Your task to perform on an android device: change text size in settings app Image 0: 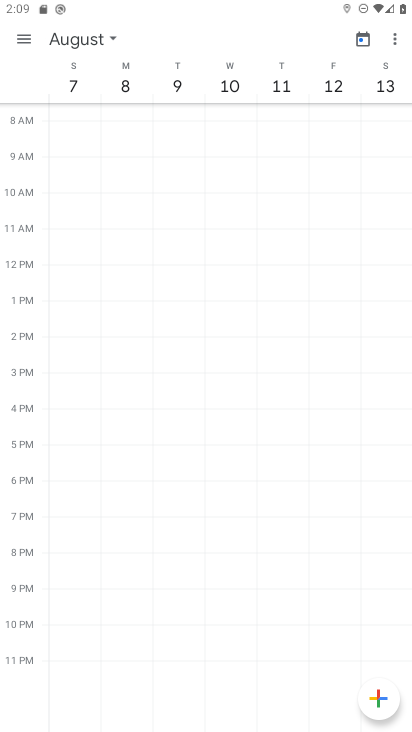
Step 0: press home button
Your task to perform on an android device: change text size in settings app Image 1: 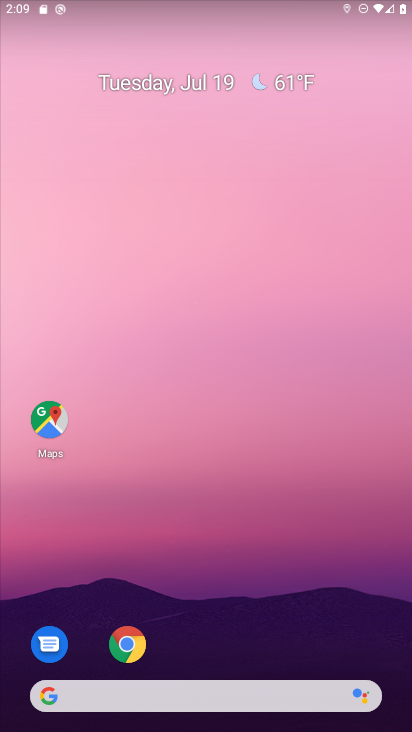
Step 1: drag from (227, 667) to (186, 66)
Your task to perform on an android device: change text size in settings app Image 2: 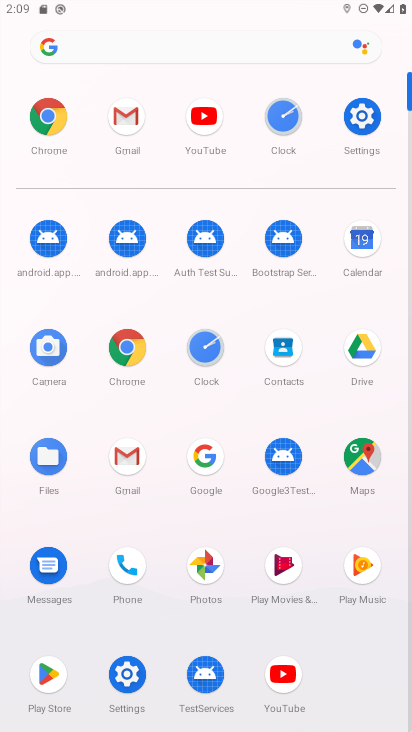
Step 2: click (347, 123)
Your task to perform on an android device: change text size in settings app Image 3: 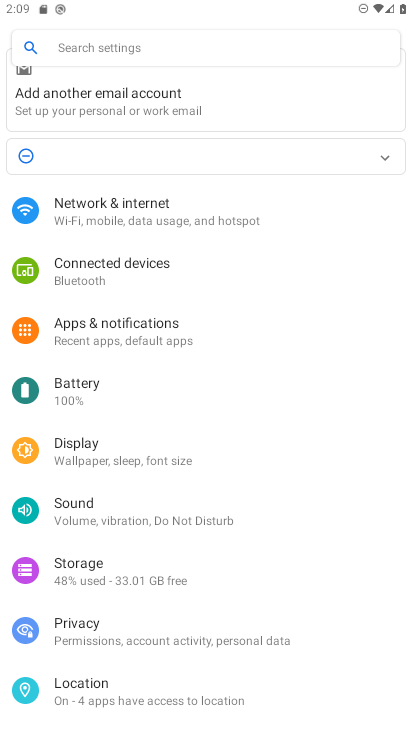
Step 3: click (105, 452)
Your task to perform on an android device: change text size in settings app Image 4: 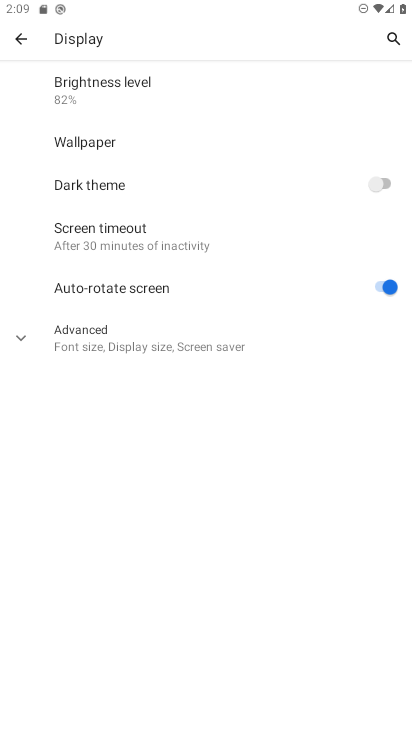
Step 4: click (88, 345)
Your task to perform on an android device: change text size in settings app Image 5: 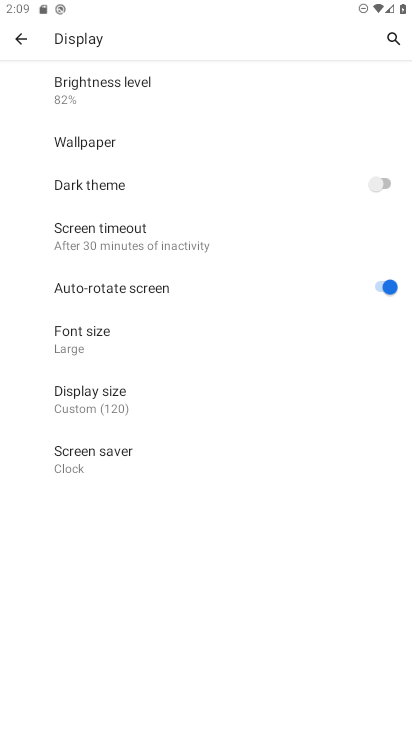
Step 5: click (86, 348)
Your task to perform on an android device: change text size in settings app Image 6: 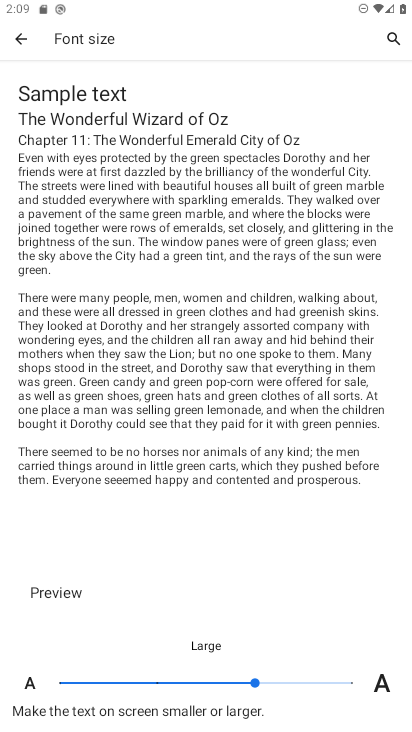
Step 6: click (130, 683)
Your task to perform on an android device: change text size in settings app Image 7: 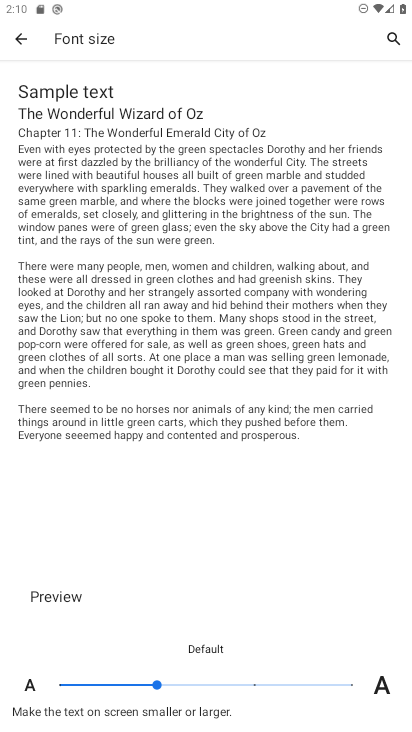
Step 7: task complete